Your task to perform on an android device: Do I have any events today? Image 0: 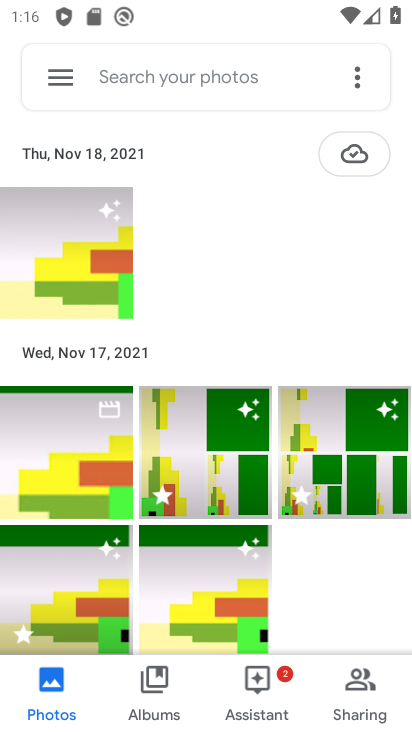
Step 0: press back button
Your task to perform on an android device: Do I have any events today? Image 1: 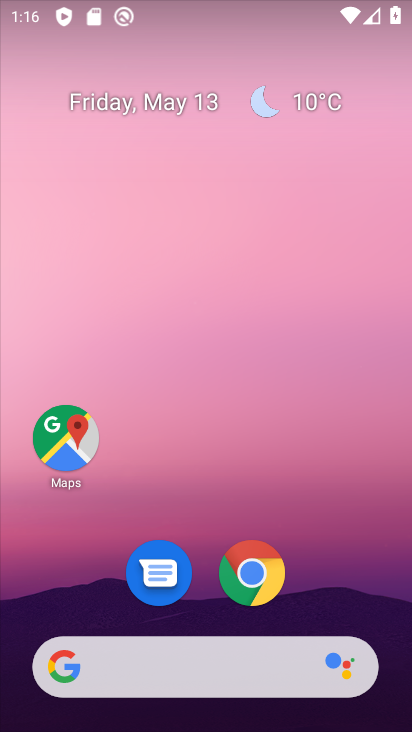
Step 1: drag from (311, 567) to (225, 3)
Your task to perform on an android device: Do I have any events today? Image 2: 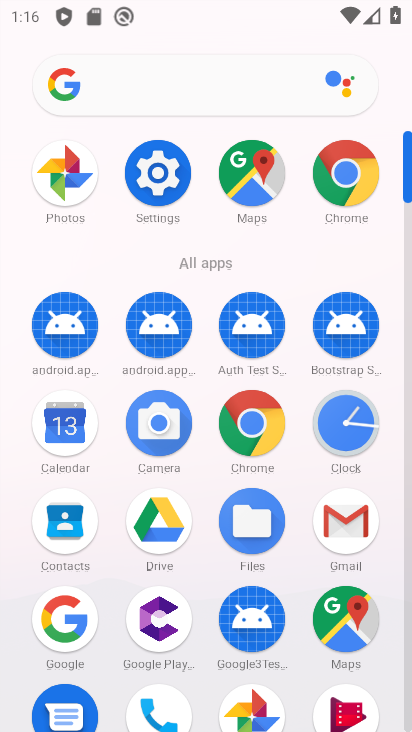
Step 2: drag from (2, 497) to (2, 180)
Your task to perform on an android device: Do I have any events today? Image 3: 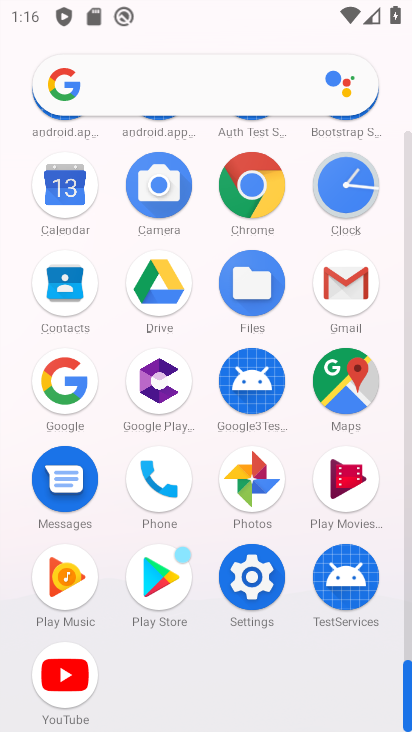
Step 3: click (243, 184)
Your task to perform on an android device: Do I have any events today? Image 4: 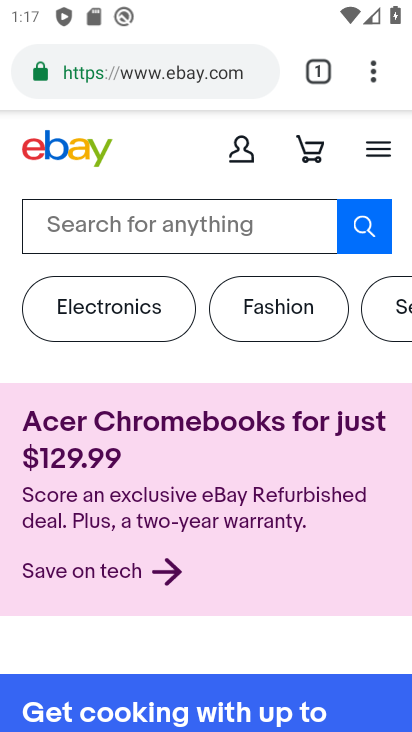
Step 4: press back button
Your task to perform on an android device: Do I have any events today? Image 5: 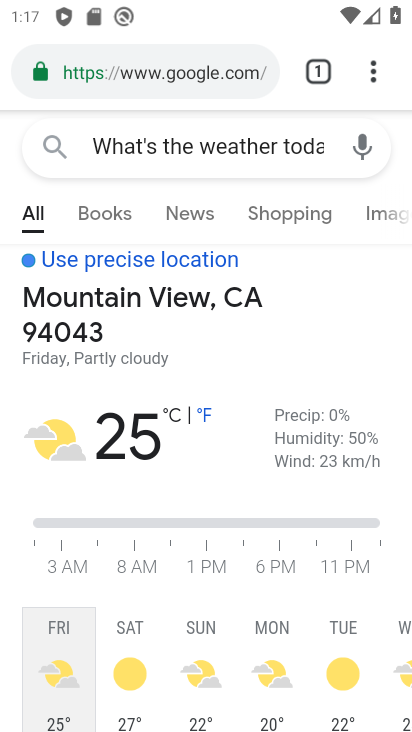
Step 5: press home button
Your task to perform on an android device: Do I have any events today? Image 6: 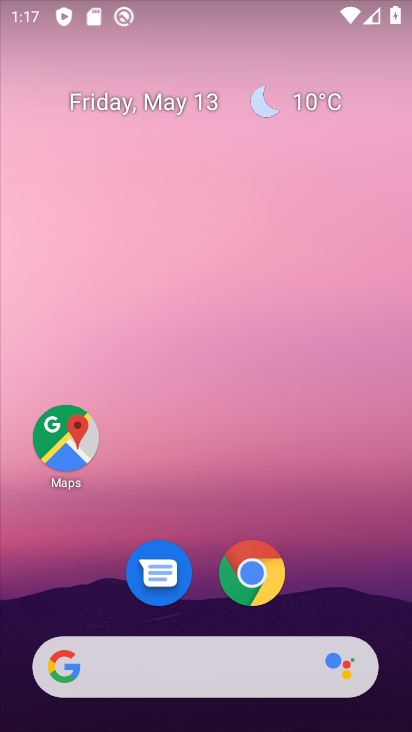
Step 6: drag from (319, 589) to (233, 4)
Your task to perform on an android device: Do I have any events today? Image 7: 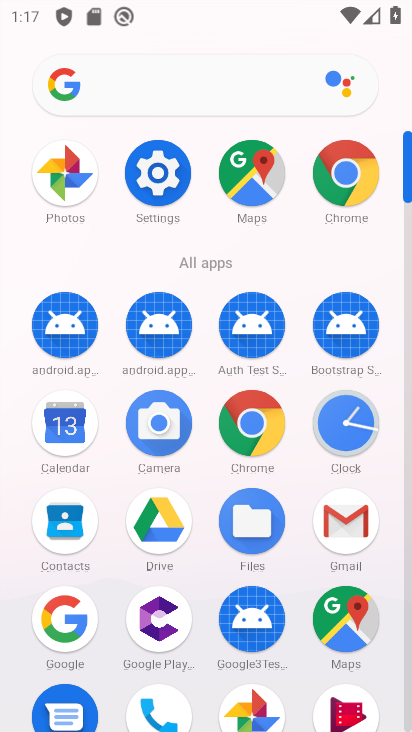
Step 7: click (61, 419)
Your task to perform on an android device: Do I have any events today? Image 8: 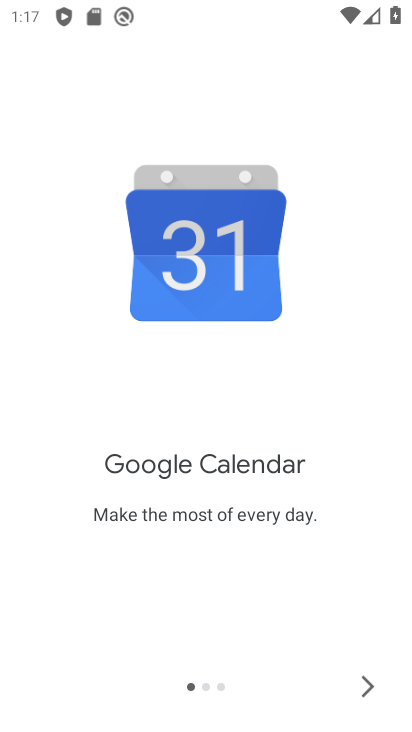
Step 8: click (355, 675)
Your task to perform on an android device: Do I have any events today? Image 9: 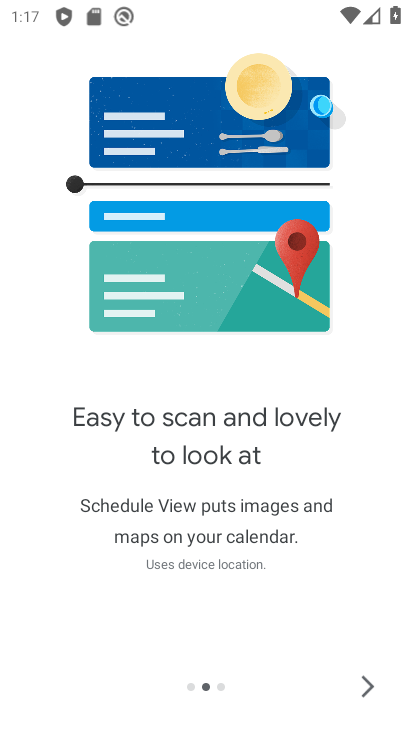
Step 9: click (355, 675)
Your task to perform on an android device: Do I have any events today? Image 10: 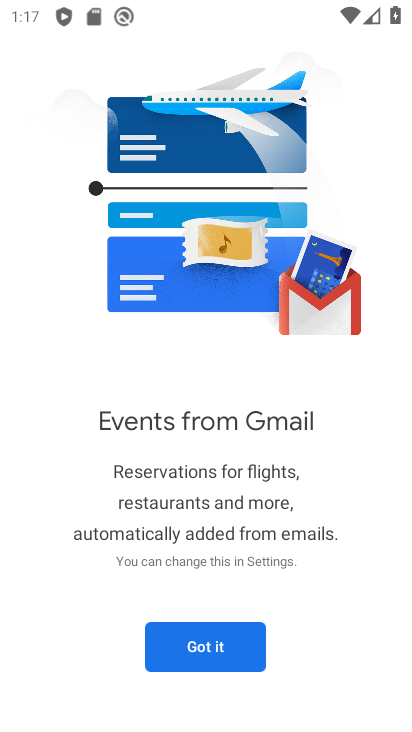
Step 10: click (355, 675)
Your task to perform on an android device: Do I have any events today? Image 11: 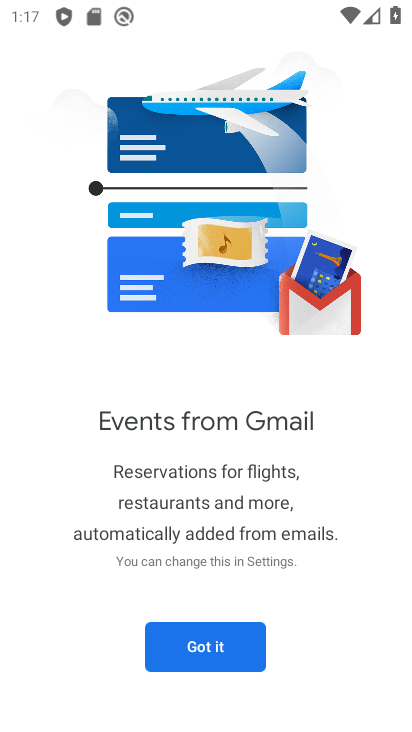
Step 11: click (186, 634)
Your task to perform on an android device: Do I have any events today? Image 12: 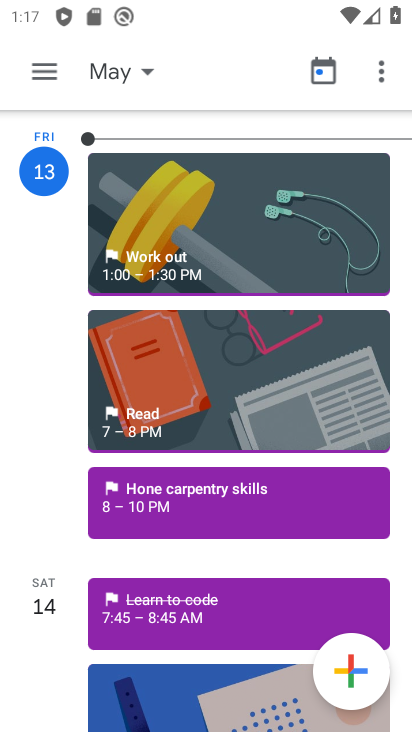
Step 12: task complete